Your task to perform on an android device: turn on bluetooth scan Image 0: 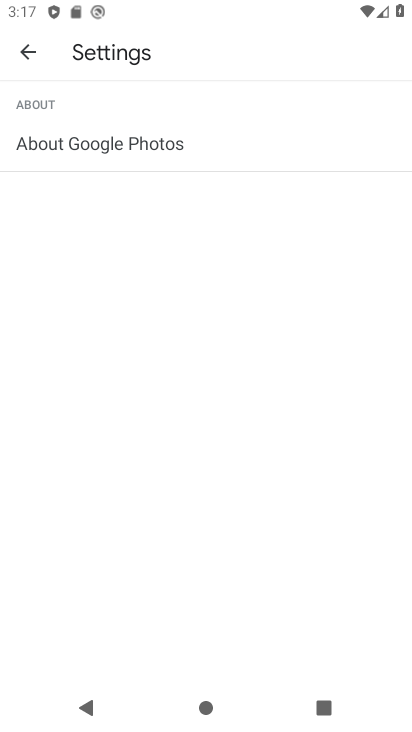
Step 0: press home button
Your task to perform on an android device: turn on bluetooth scan Image 1: 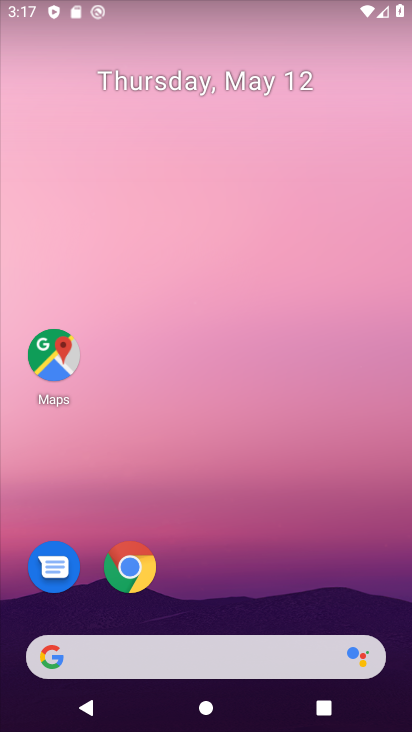
Step 1: drag from (187, 626) to (309, 69)
Your task to perform on an android device: turn on bluetooth scan Image 2: 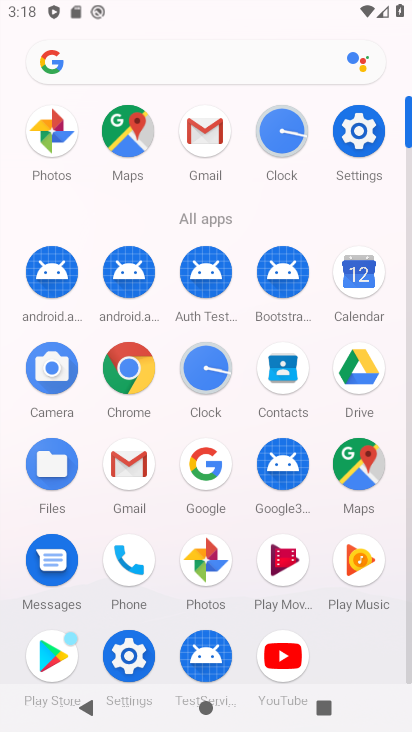
Step 2: click (362, 132)
Your task to perform on an android device: turn on bluetooth scan Image 3: 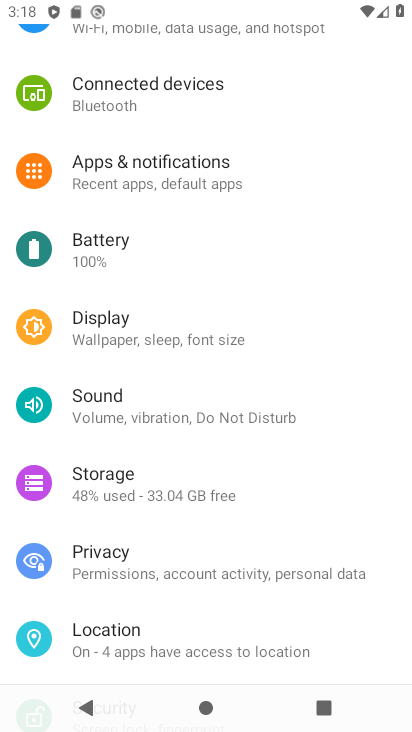
Step 3: drag from (242, 241) to (233, 558)
Your task to perform on an android device: turn on bluetooth scan Image 4: 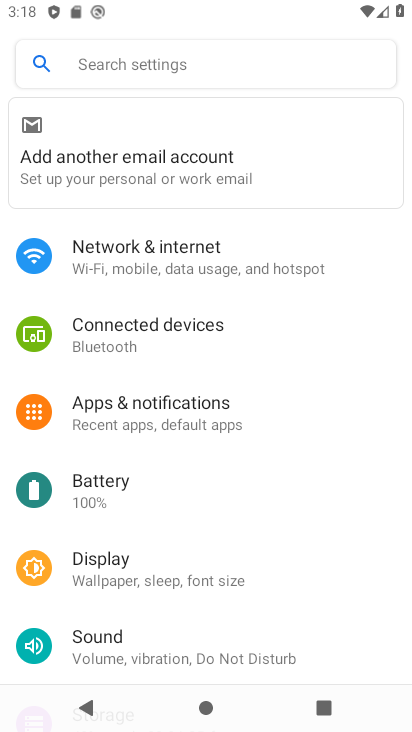
Step 4: click (208, 328)
Your task to perform on an android device: turn on bluetooth scan Image 5: 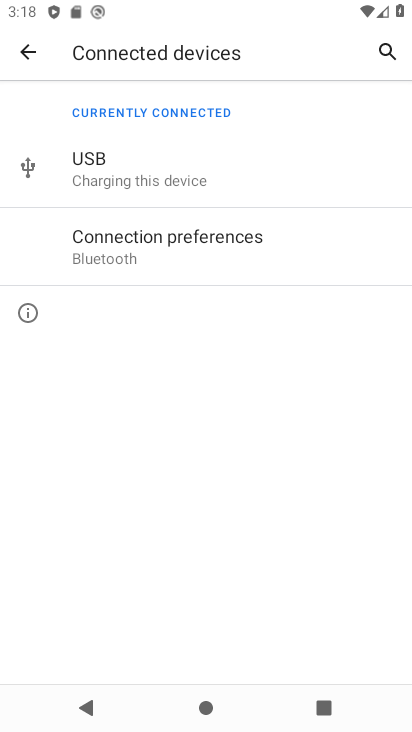
Step 5: click (223, 276)
Your task to perform on an android device: turn on bluetooth scan Image 6: 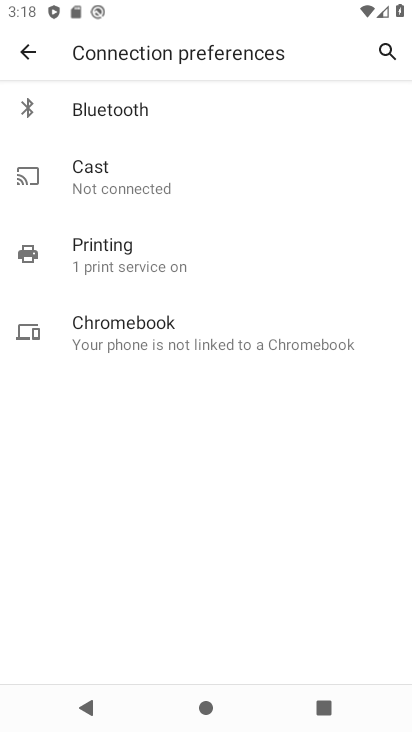
Step 6: click (190, 126)
Your task to perform on an android device: turn on bluetooth scan Image 7: 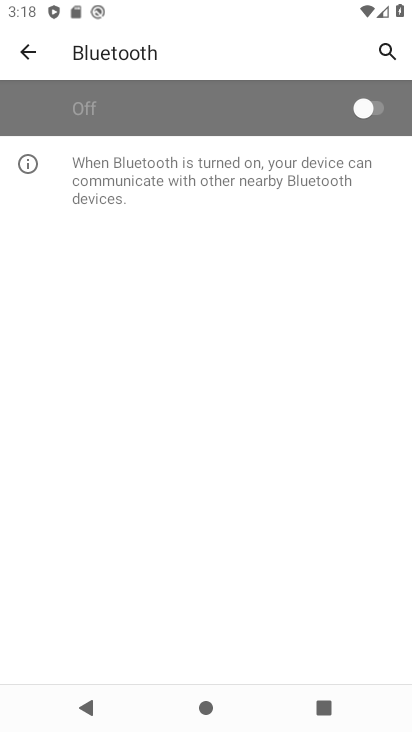
Step 7: click (383, 104)
Your task to perform on an android device: turn on bluetooth scan Image 8: 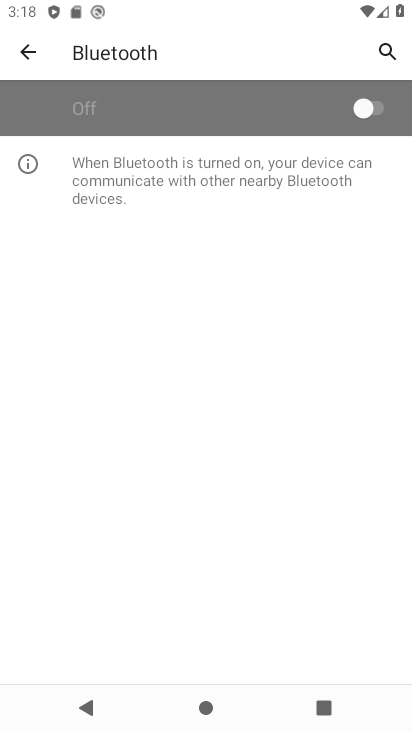
Step 8: click (383, 104)
Your task to perform on an android device: turn on bluetooth scan Image 9: 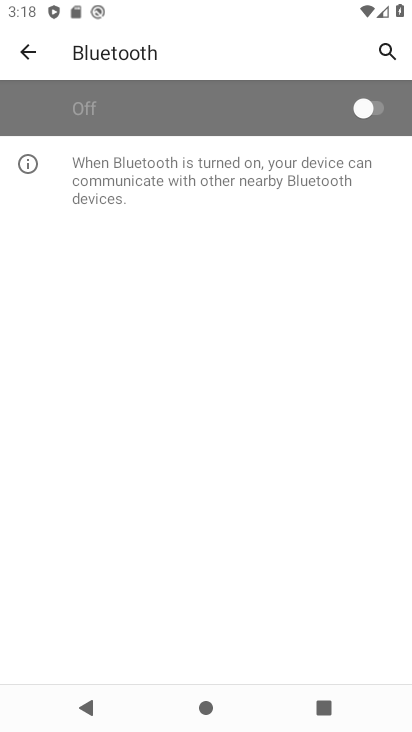
Step 9: task complete